Your task to perform on an android device: Go to network settings Image 0: 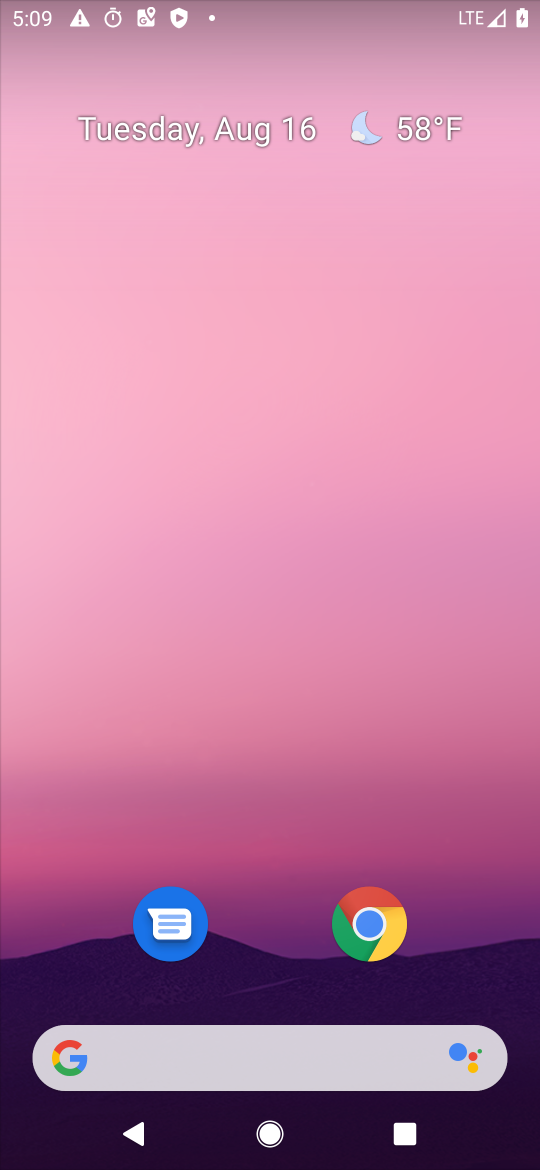
Step 0: drag from (302, 10) to (264, 821)
Your task to perform on an android device: Go to network settings Image 1: 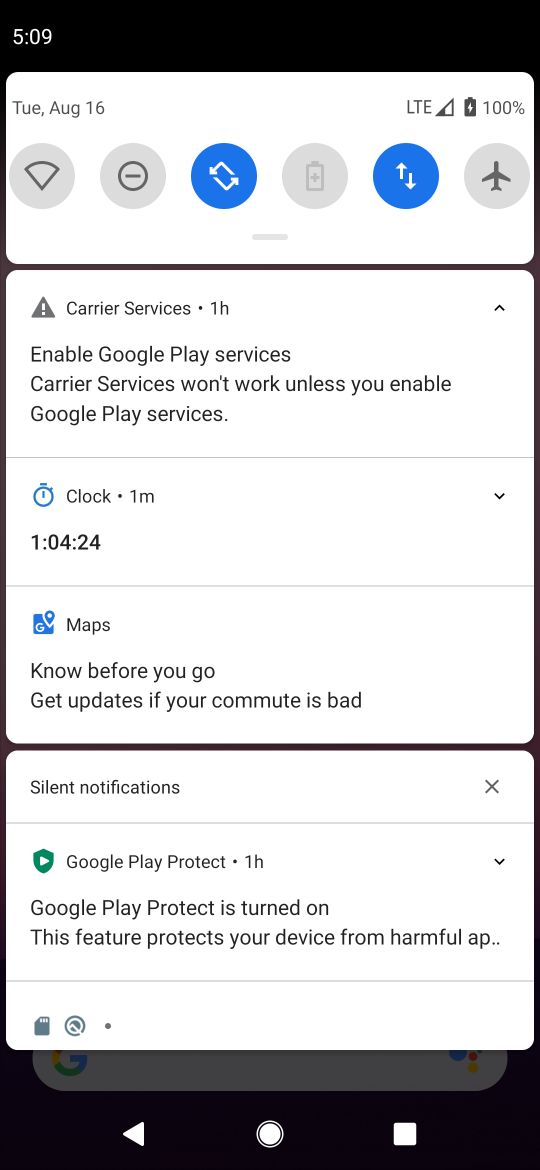
Step 1: click (414, 193)
Your task to perform on an android device: Go to network settings Image 2: 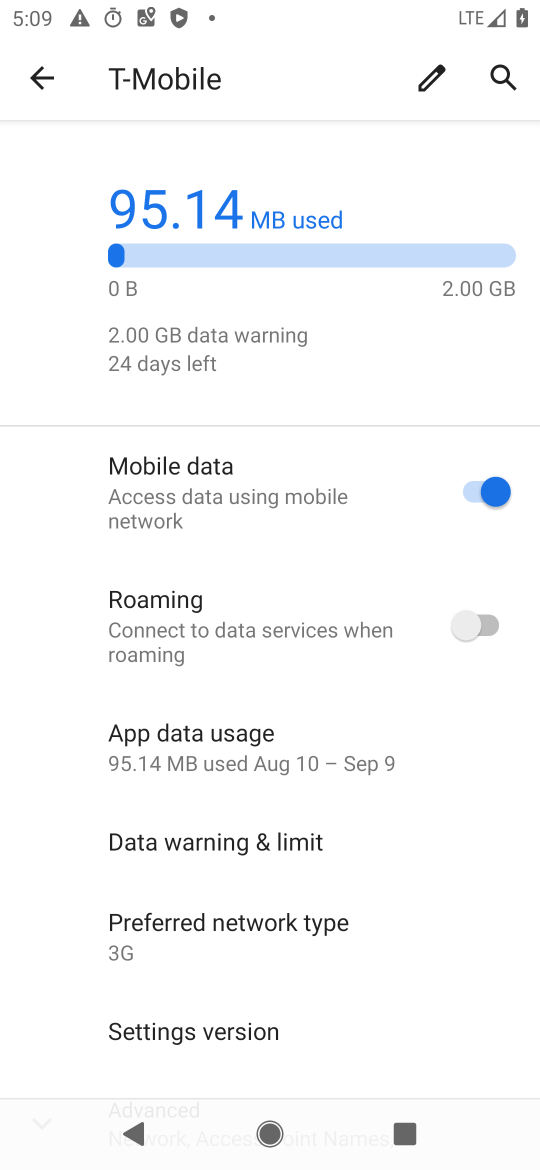
Step 2: task complete